Your task to perform on an android device: Open CNN.com Image 0: 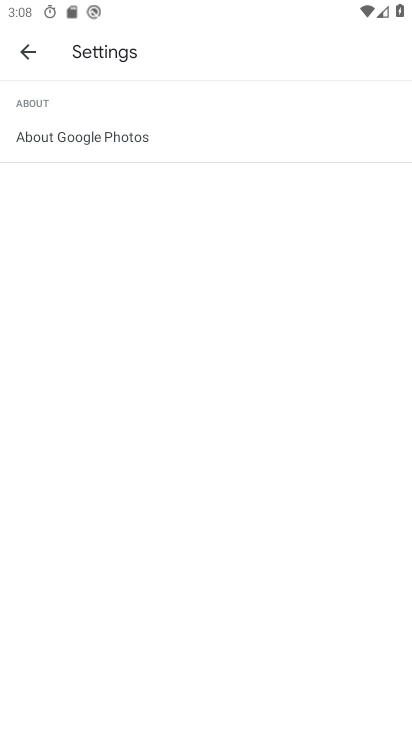
Step 0: press home button
Your task to perform on an android device: Open CNN.com Image 1: 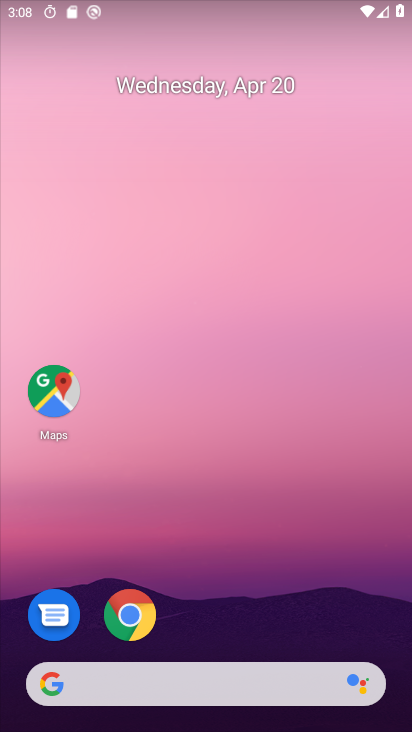
Step 1: drag from (251, 415) to (307, 1)
Your task to perform on an android device: Open CNN.com Image 2: 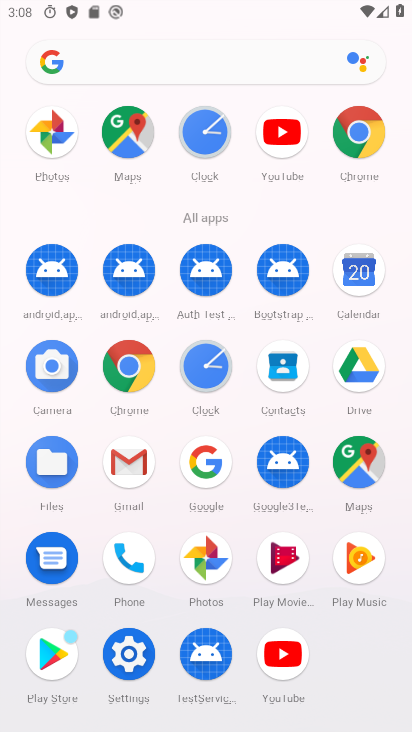
Step 2: click (350, 139)
Your task to perform on an android device: Open CNN.com Image 3: 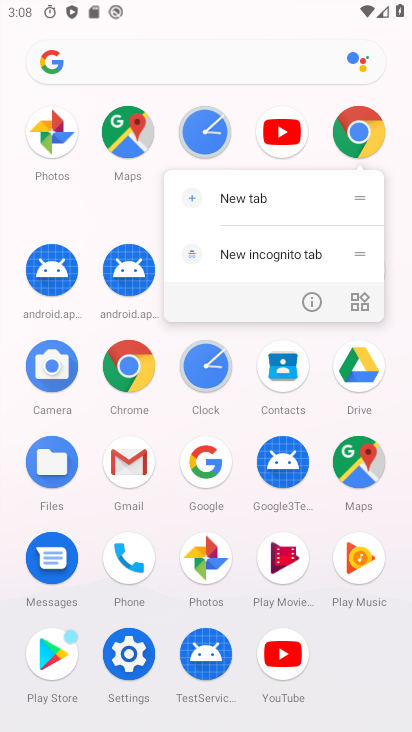
Step 3: click (368, 119)
Your task to perform on an android device: Open CNN.com Image 4: 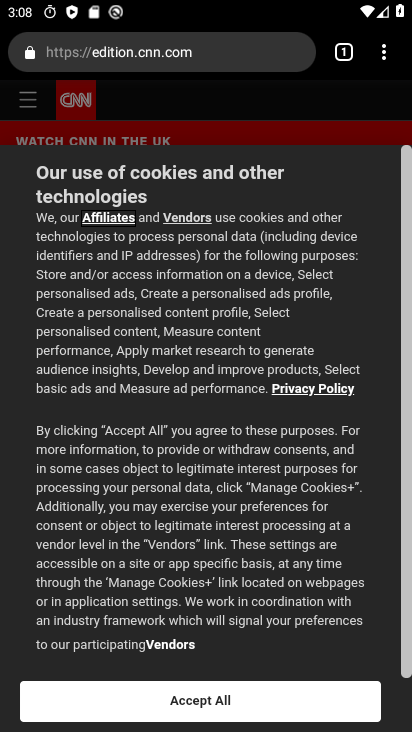
Step 4: task complete